Your task to perform on an android device: set the timer Image 0: 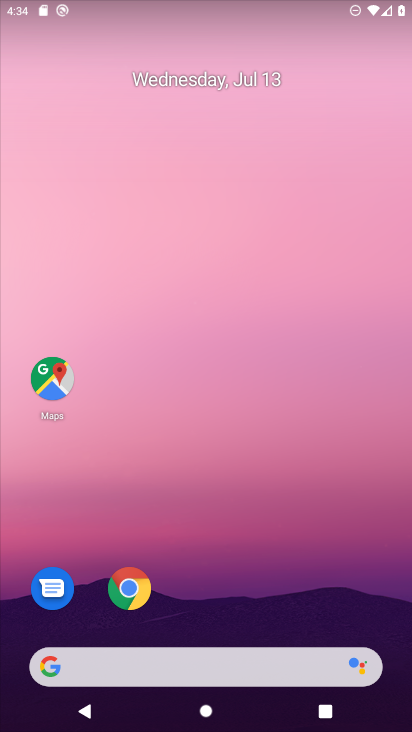
Step 0: drag from (243, 521) to (212, 184)
Your task to perform on an android device: set the timer Image 1: 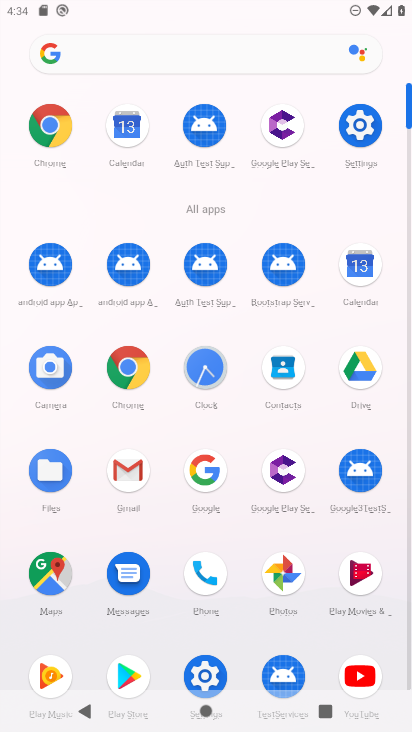
Step 1: drag from (213, 601) to (213, 193)
Your task to perform on an android device: set the timer Image 2: 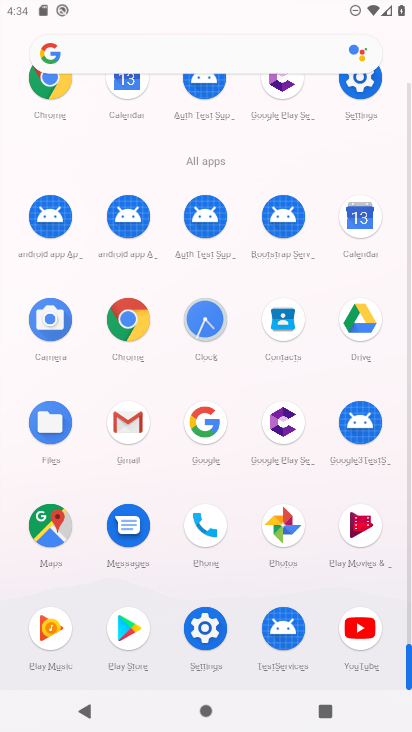
Step 2: click (214, 330)
Your task to perform on an android device: set the timer Image 3: 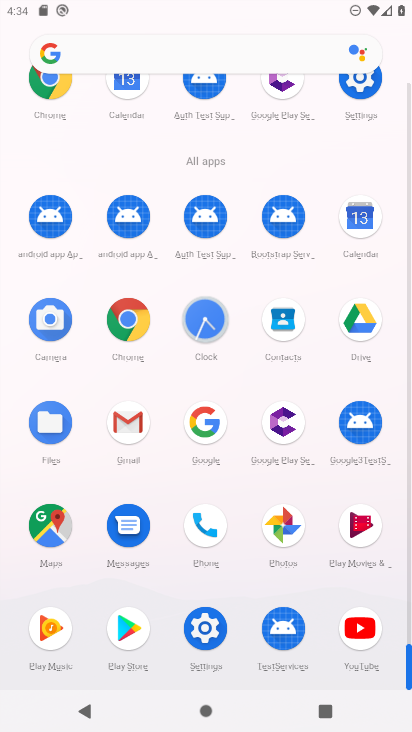
Step 3: click (211, 322)
Your task to perform on an android device: set the timer Image 4: 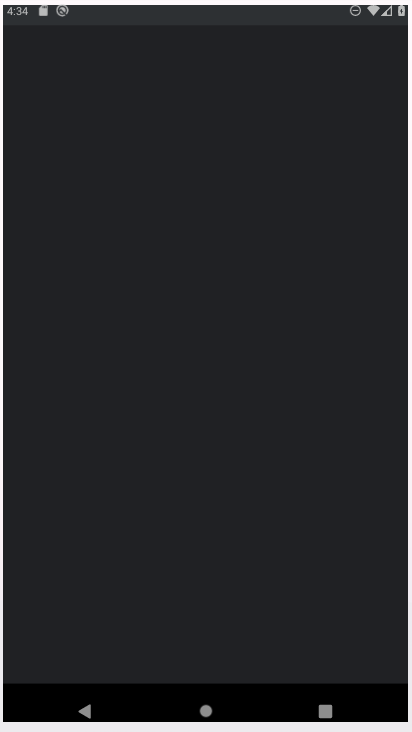
Step 4: click (209, 325)
Your task to perform on an android device: set the timer Image 5: 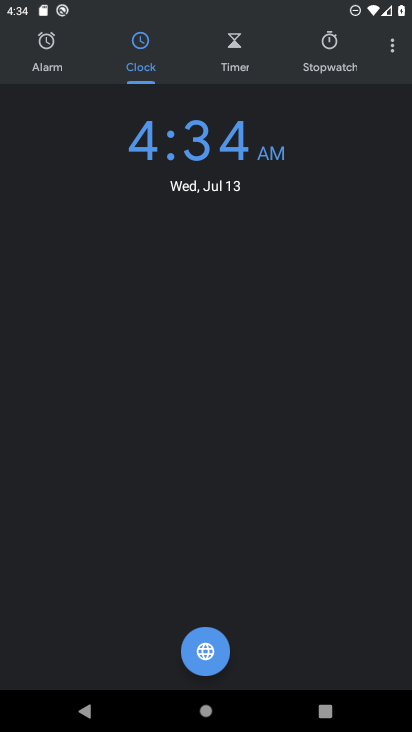
Step 5: click (236, 62)
Your task to perform on an android device: set the timer Image 6: 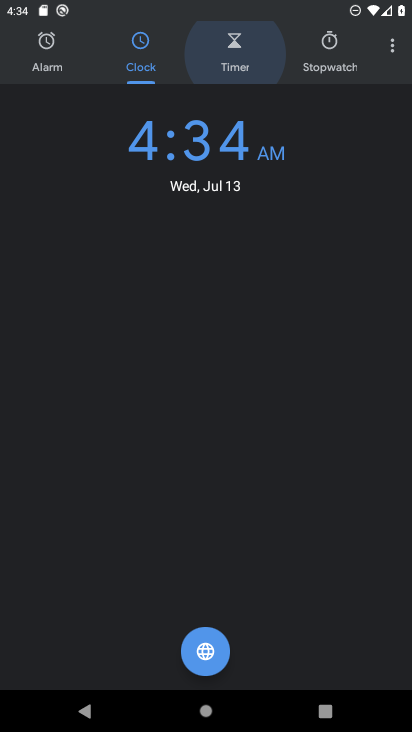
Step 6: click (236, 62)
Your task to perform on an android device: set the timer Image 7: 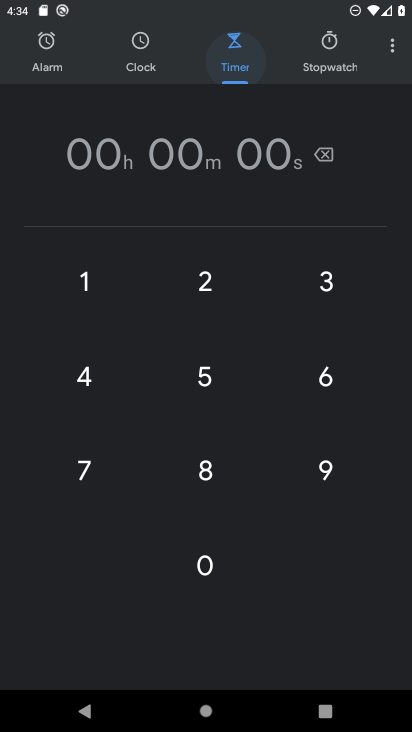
Step 7: click (236, 62)
Your task to perform on an android device: set the timer Image 8: 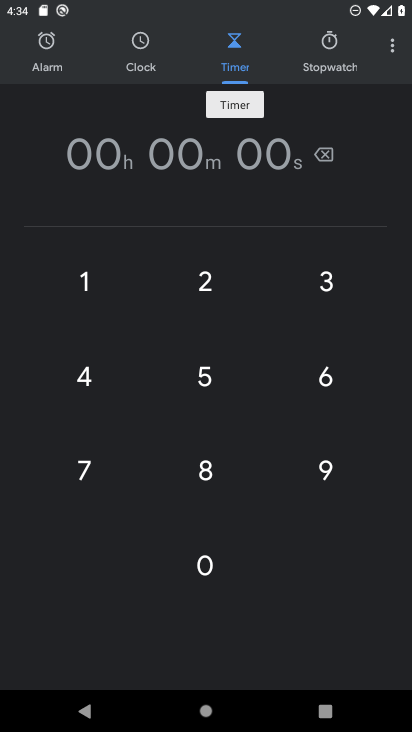
Step 8: click (198, 369)
Your task to perform on an android device: set the timer Image 9: 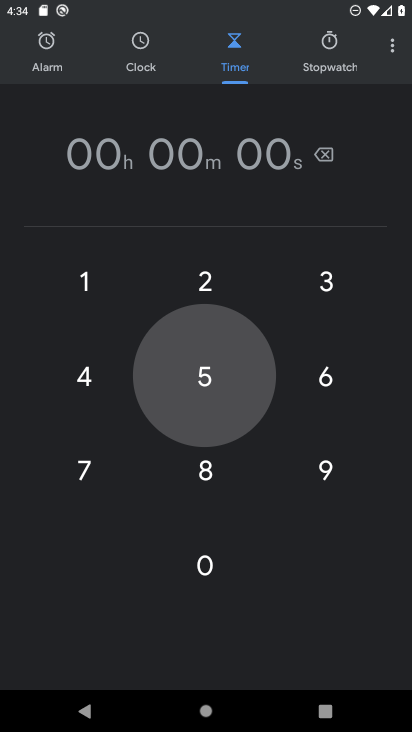
Step 9: click (198, 369)
Your task to perform on an android device: set the timer Image 10: 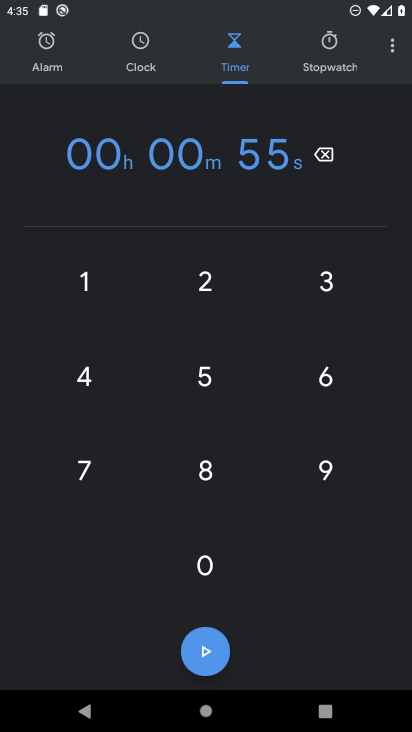
Step 10: click (197, 664)
Your task to perform on an android device: set the timer Image 11: 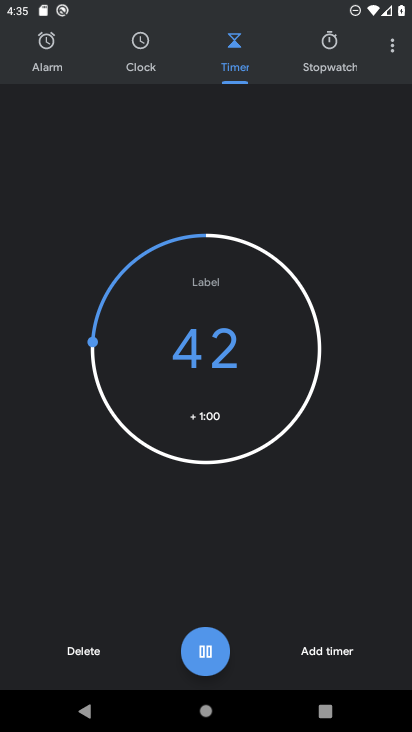
Step 11: click (195, 651)
Your task to perform on an android device: set the timer Image 12: 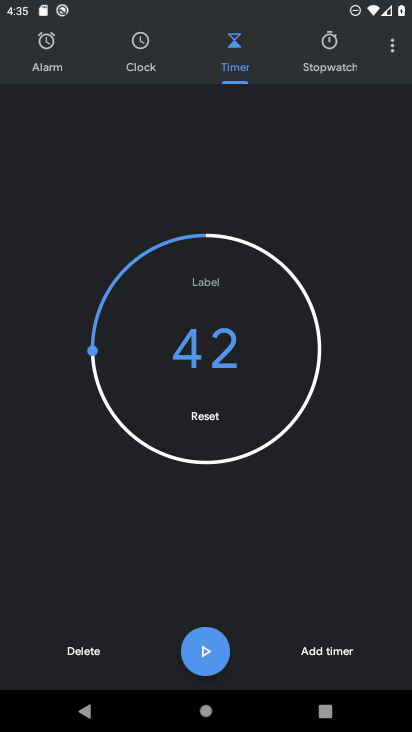
Step 12: click (316, 650)
Your task to perform on an android device: set the timer Image 13: 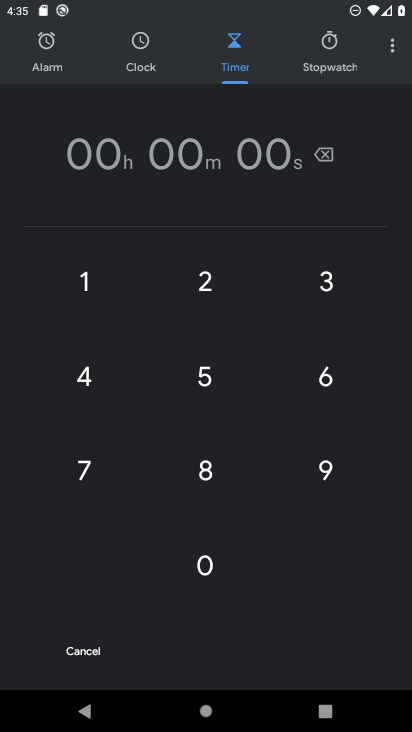
Step 13: task complete